Your task to perform on an android device: Open Chrome and go to settings Image 0: 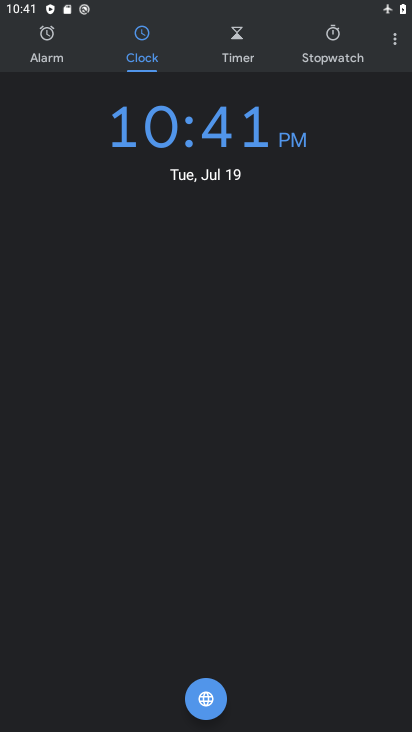
Step 0: press home button
Your task to perform on an android device: Open Chrome and go to settings Image 1: 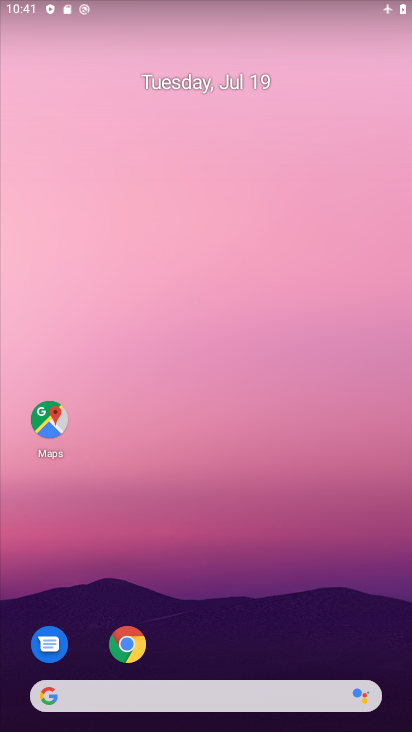
Step 1: click (128, 644)
Your task to perform on an android device: Open Chrome and go to settings Image 2: 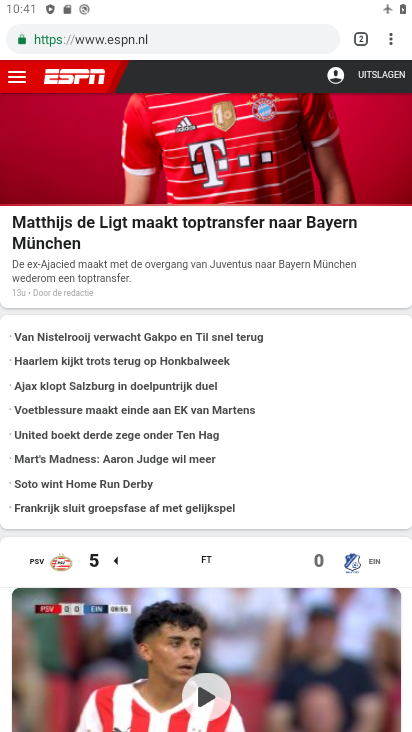
Step 2: click (391, 36)
Your task to perform on an android device: Open Chrome and go to settings Image 3: 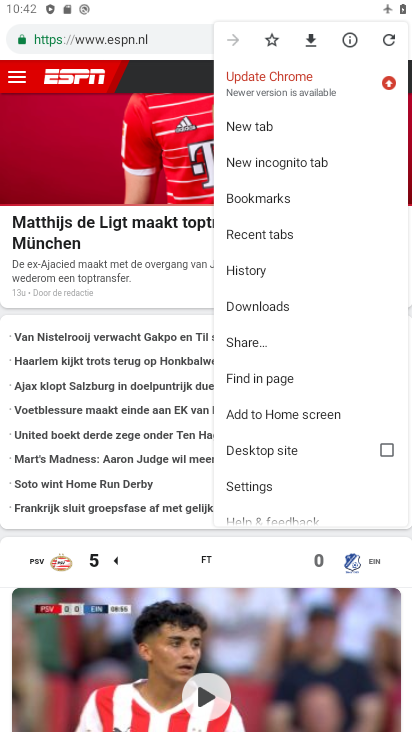
Step 3: click (252, 482)
Your task to perform on an android device: Open Chrome and go to settings Image 4: 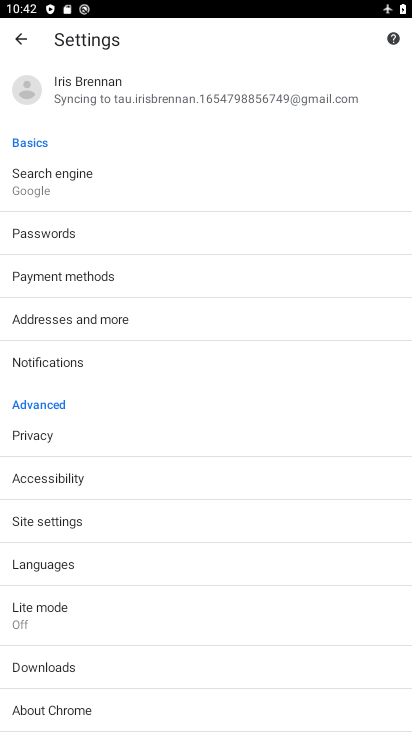
Step 4: task complete